Your task to perform on an android device: turn on showing notifications on the lock screen Image 0: 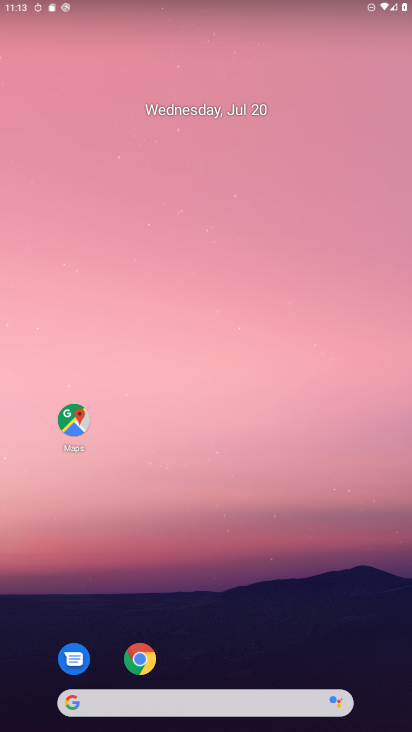
Step 0: drag from (344, 545) to (232, 129)
Your task to perform on an android device: turn on showing notifications on the lock screen Image 1: 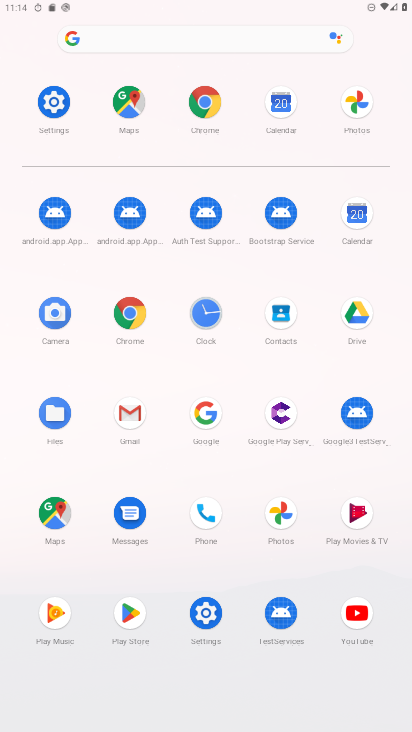
Step 1: click (60, 103)
Your task to perform on an android device: turn on showing notifications on the lock screen Image 2: 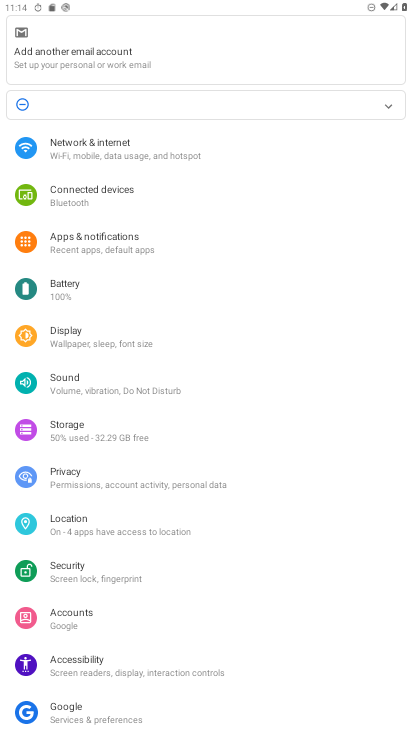
Step 2: click (105, 245)
Your task to perform on an android device: turn on showing notifications on the lock screen Image 3: 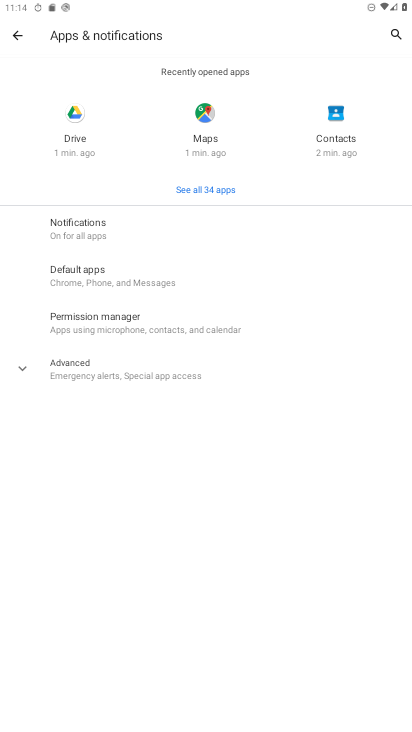
Step 3: click (83, 239)
Your task to perform on an android device: turn on showing notifications on the lock screen Image 4: 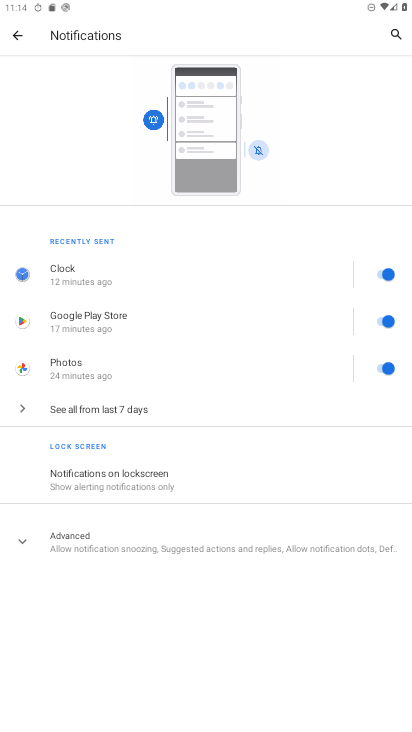
Step 4: click (133, 482)
Your task to perform on an android device: turn on showing notifications on the lock screen Image 5: 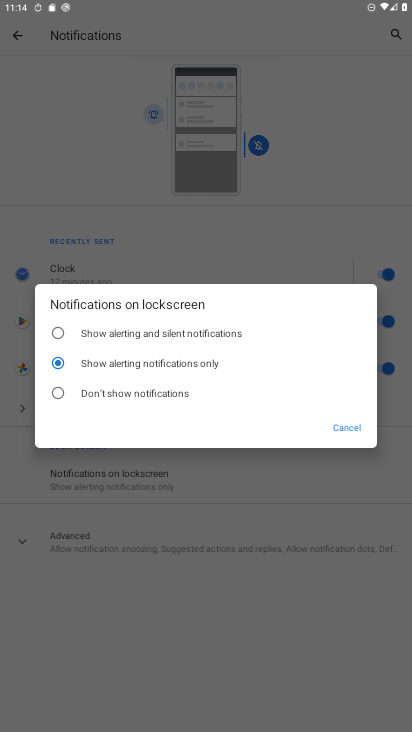
Step 5: task complete